Your task to perform on an android device: Find coffee shops on Maps Image 0: 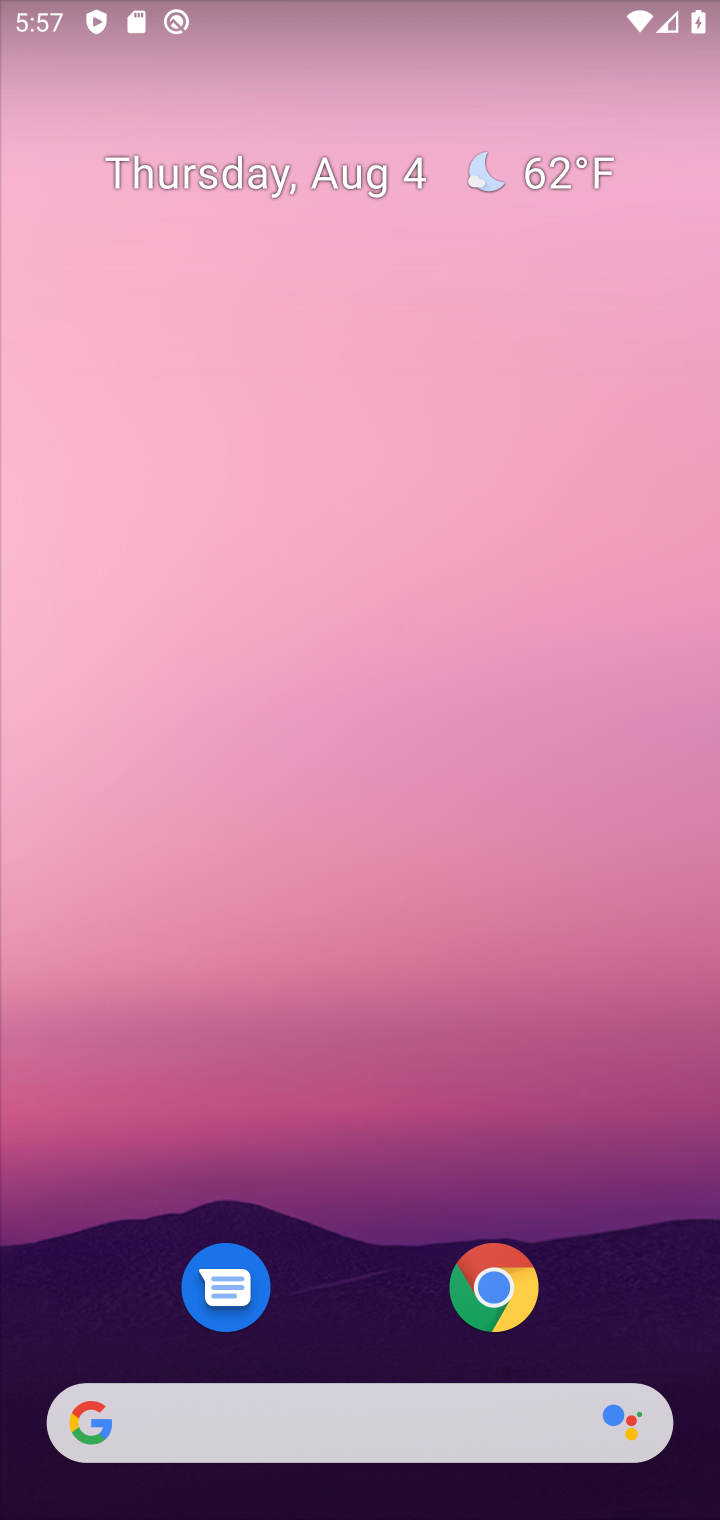
Step 0: click (325, 13)
Your task to perform on an android device: Find coffee shops on Maps Image 1: 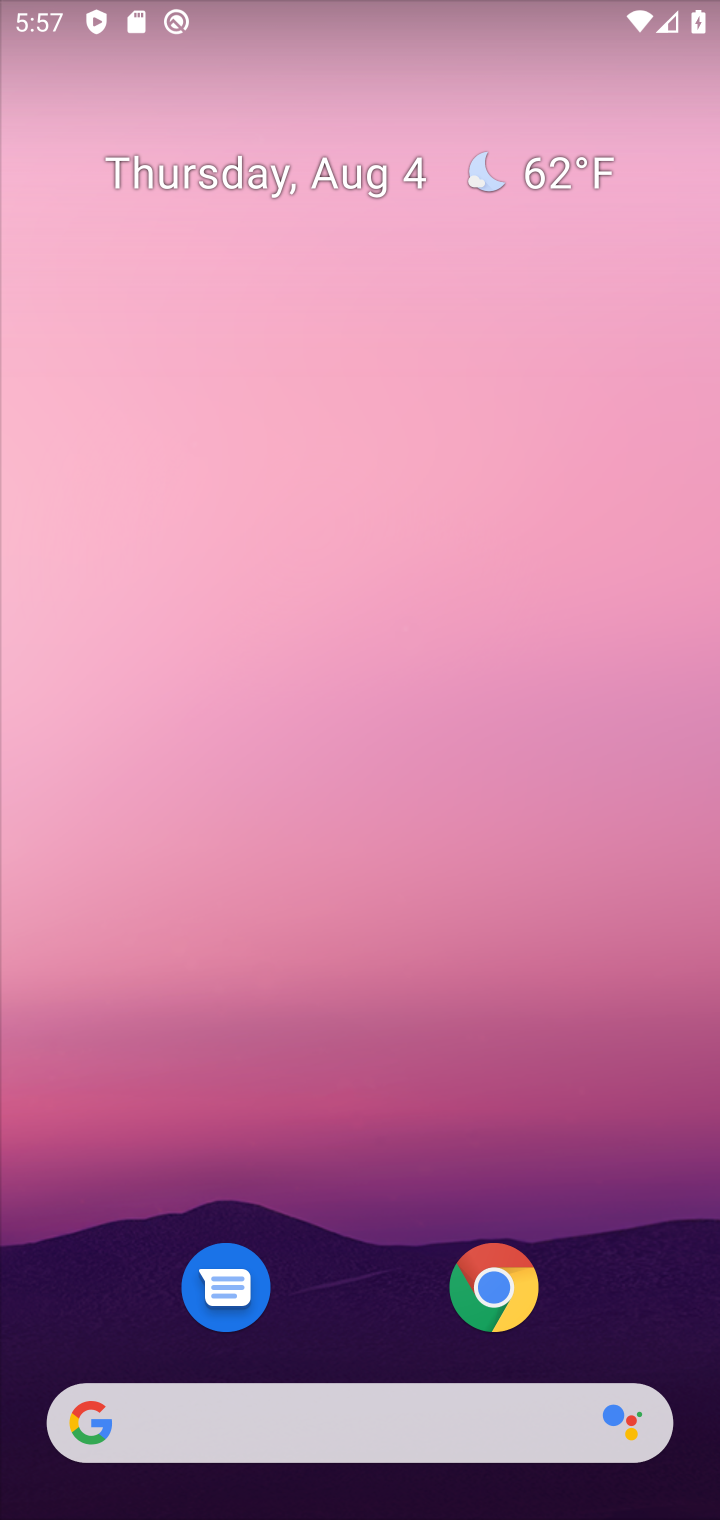
Step 1: drag from (336, 1139) to (503, 382)
Your task to perform on an android device: Find coffee shops on Maps Image 2: 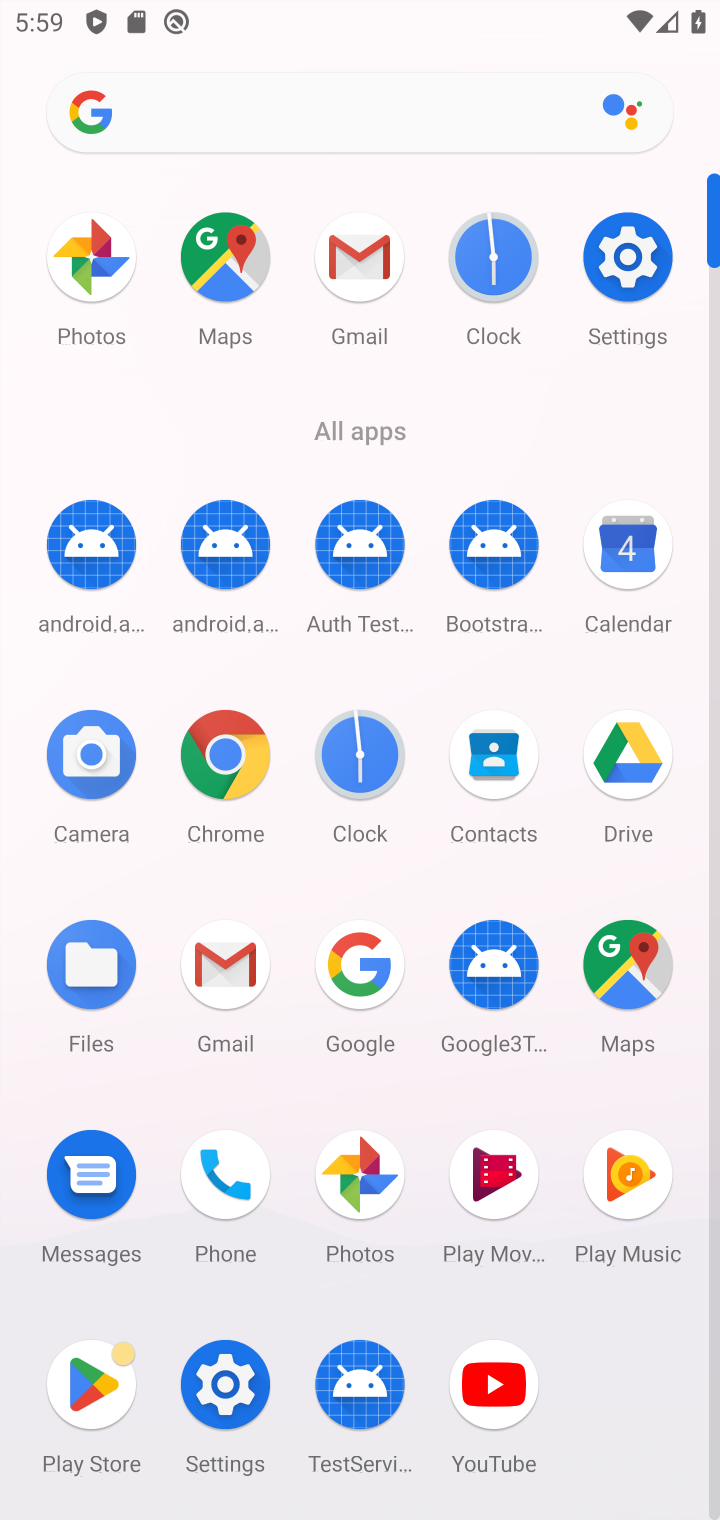
Step 2: click (100, 288)
Your task to perform on an android device: Find coffee shops on Maps Image 3: 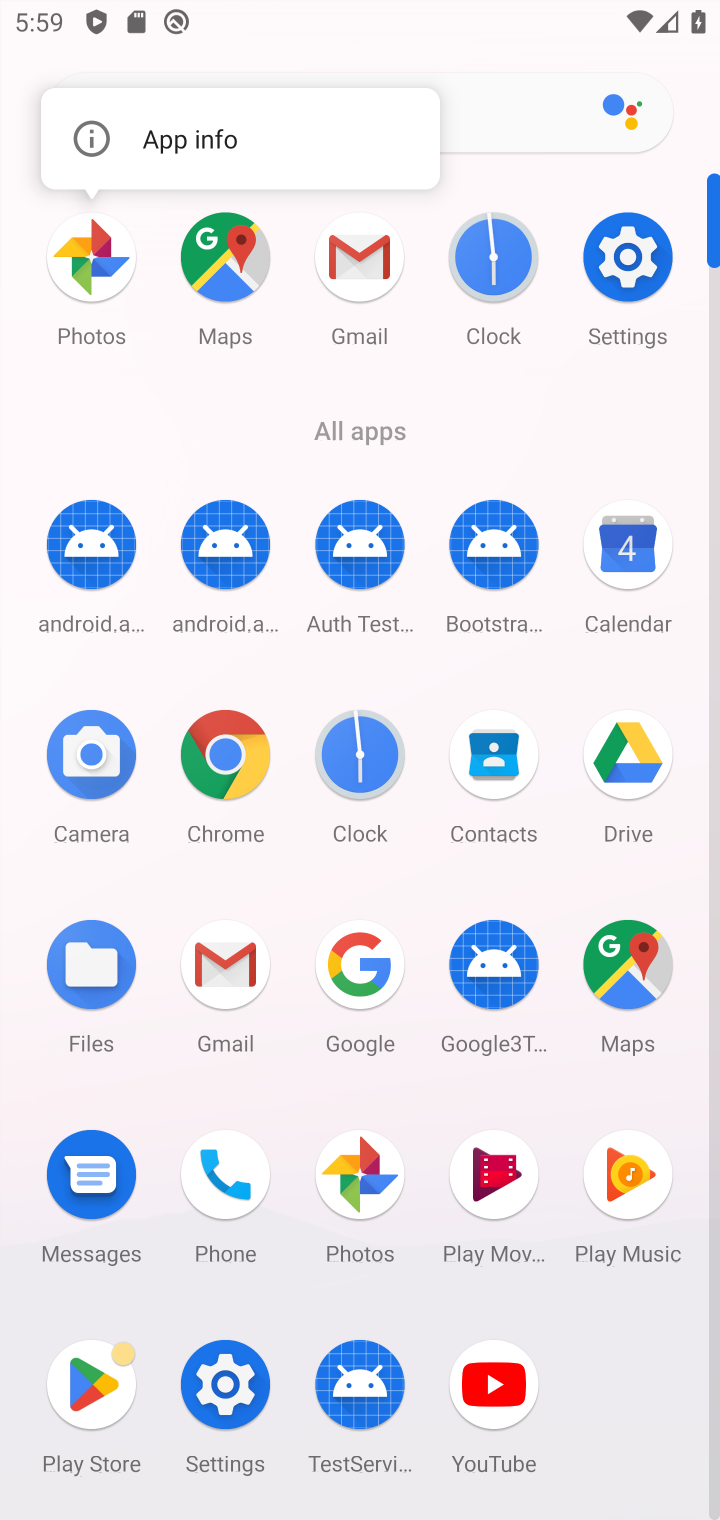
Step 3: click (93, 298)
Your task to perform on an android device: Find coffee shops on Maps Image 4: 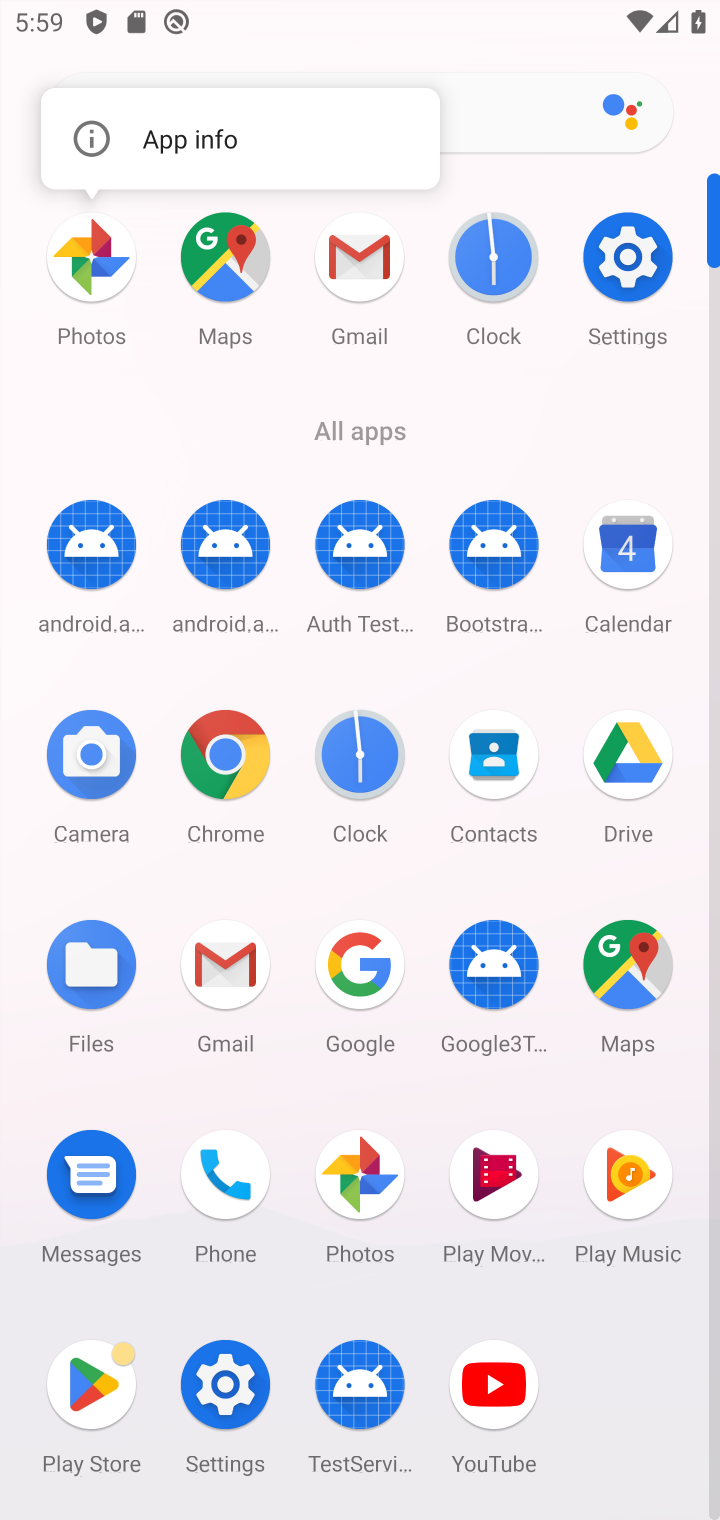
Step 4: click (193, 256)
Your task to perform on an android device: Find coffee shops on Maps Image 5: 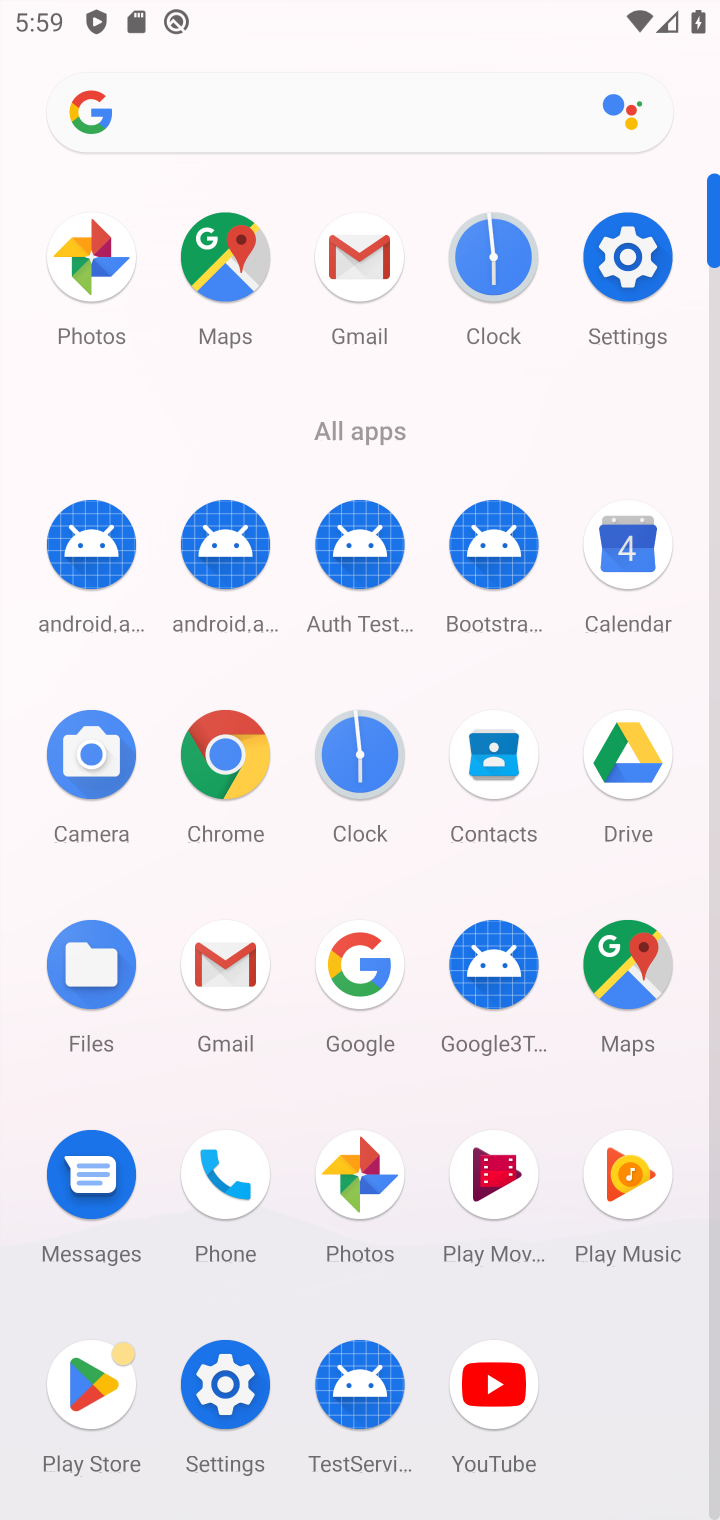
Step 5: click (224, 278)
Your task to perform on an android device: Find coffee shops on Maps Image 6: 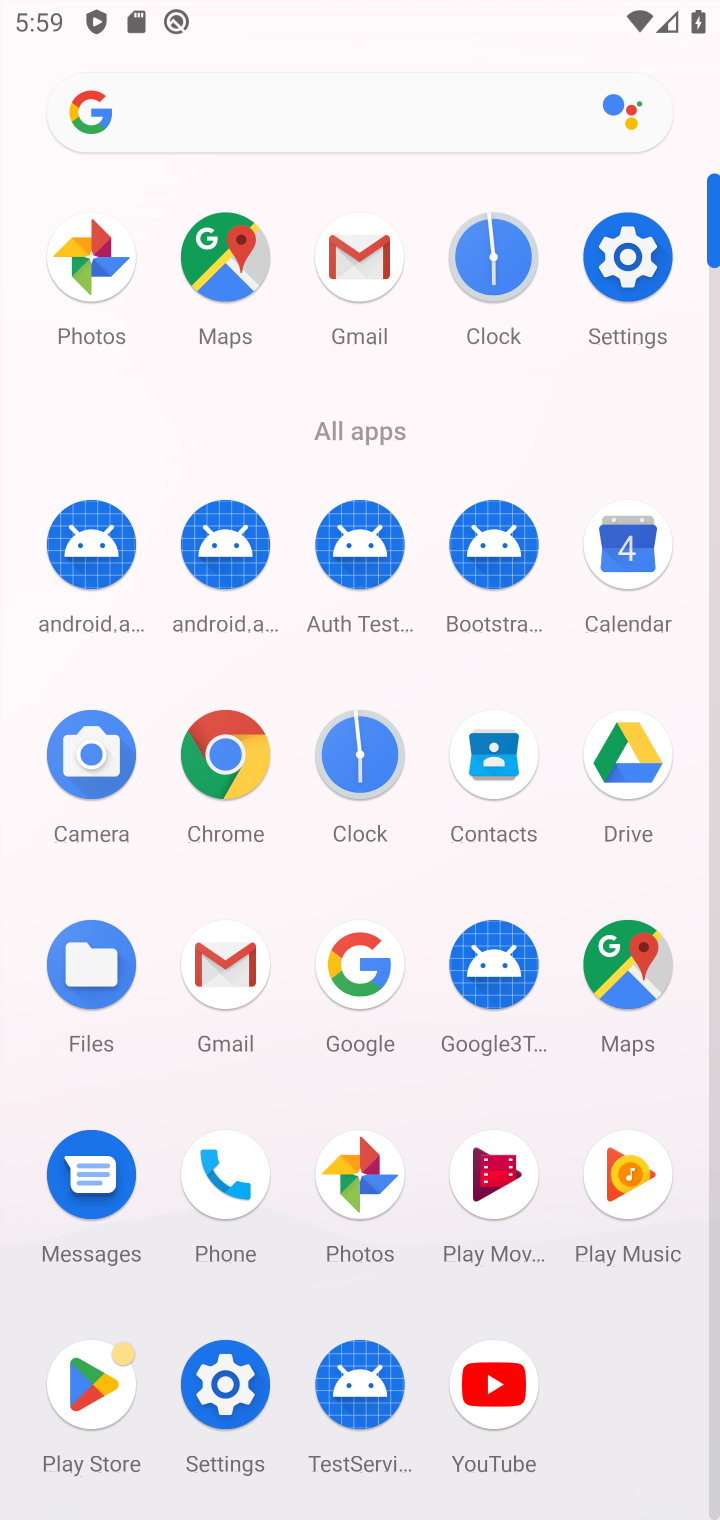
Step 6: drag from (231, 297) to (235, 208)
Your task to perform on an android device: Find coffee shops on Maps Image 7: 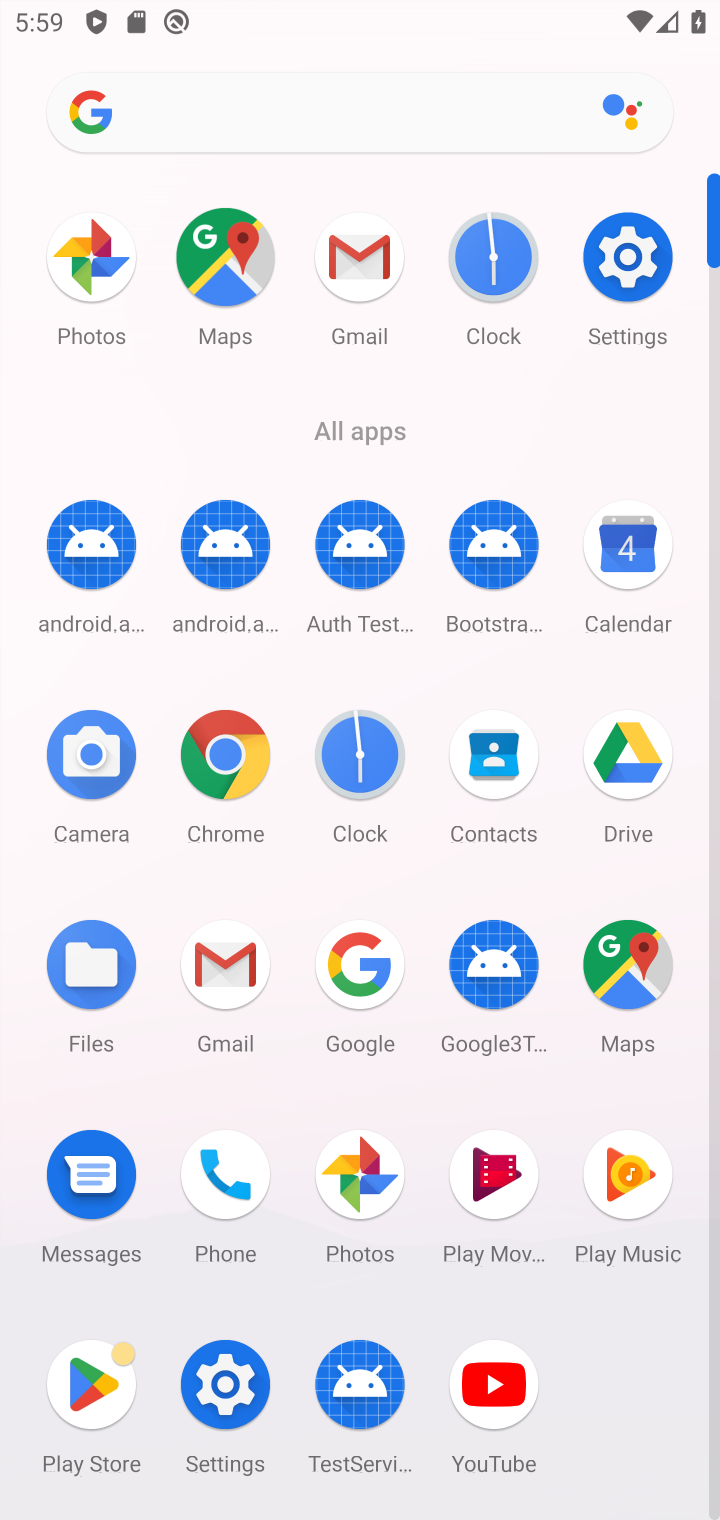
Step 7: click (215, 278)
Your task to perform on an android device: Find coffee shops on Maps Image 8: 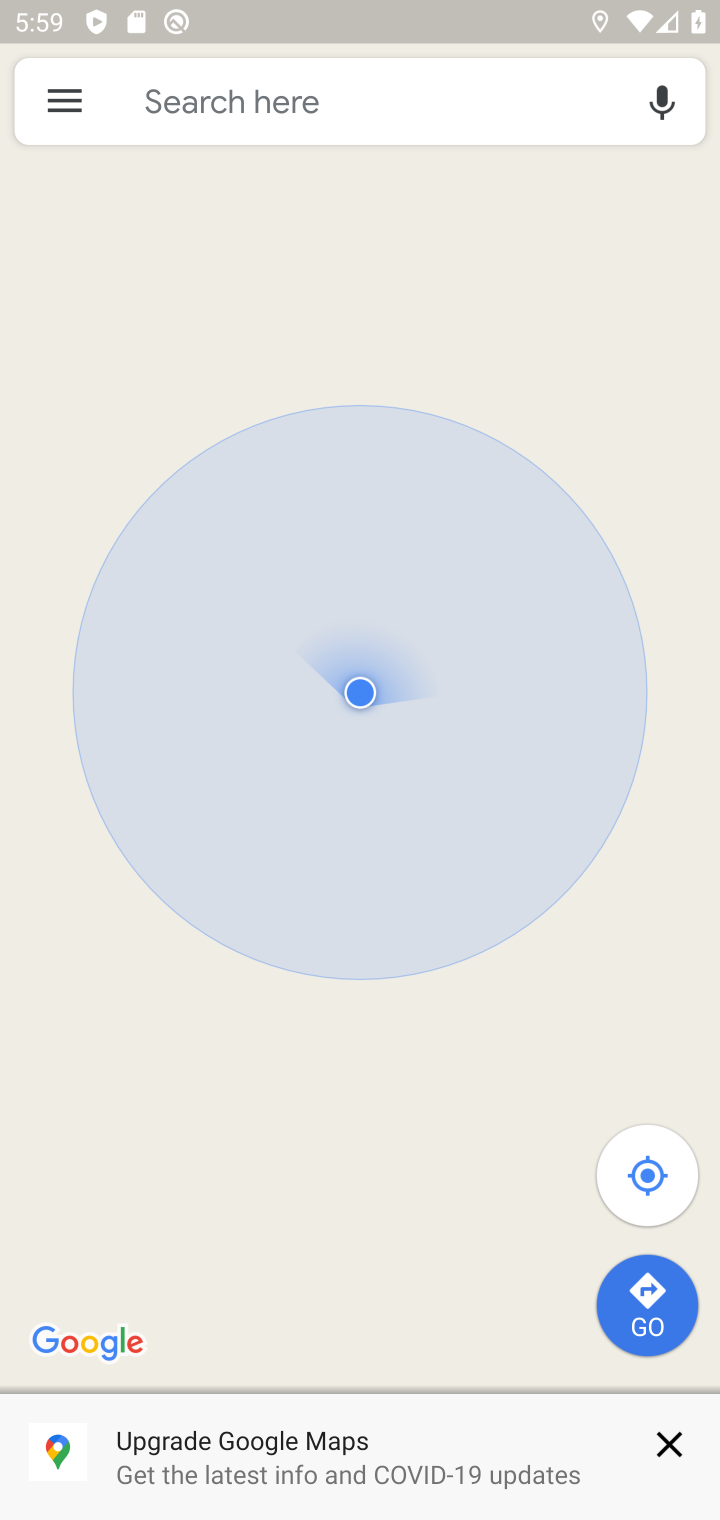
Step 8: click (305, 97)
Your task to perform on an android device: Find coffee shops on Maps Image 9: 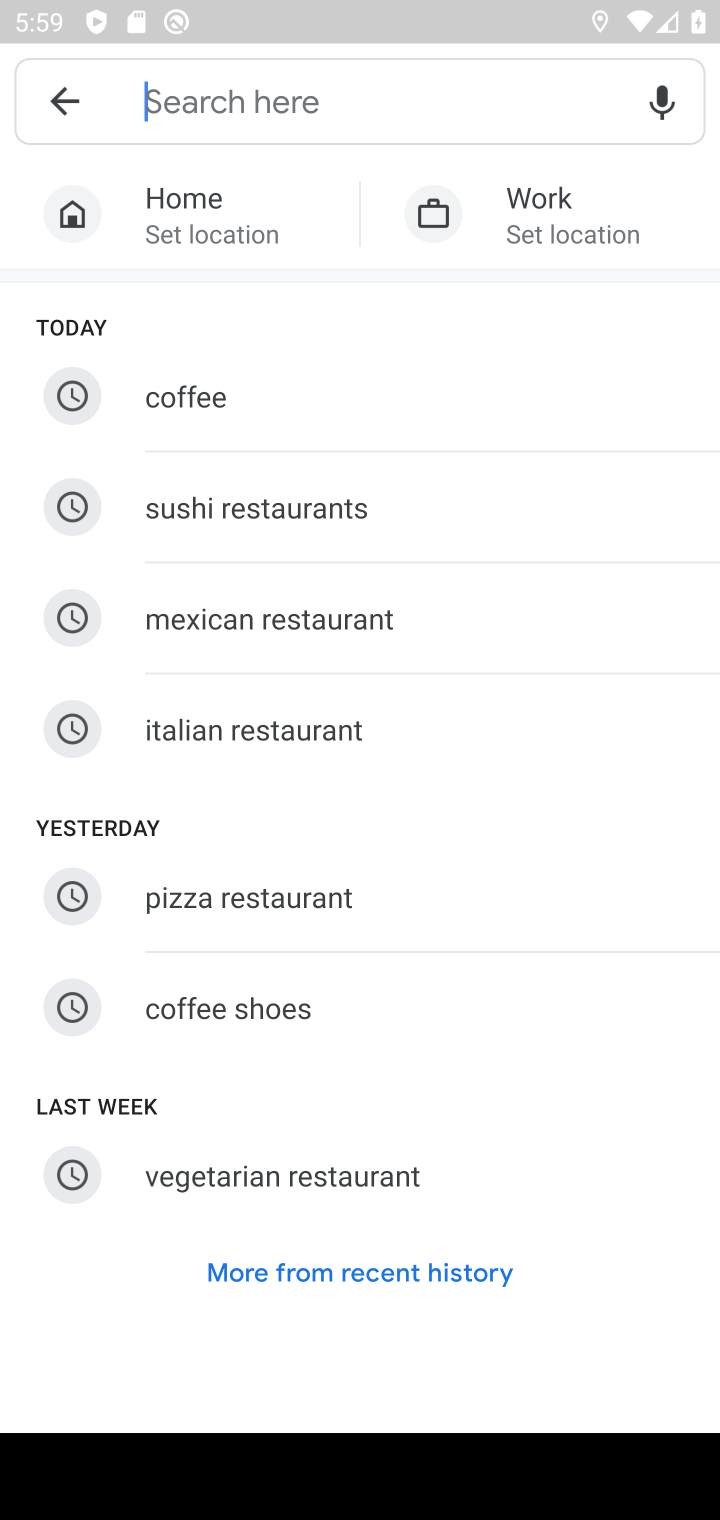
Step 9: type "coffee shop"
Your task to perform on an android device: Find coffee shops on Maps Image 10: 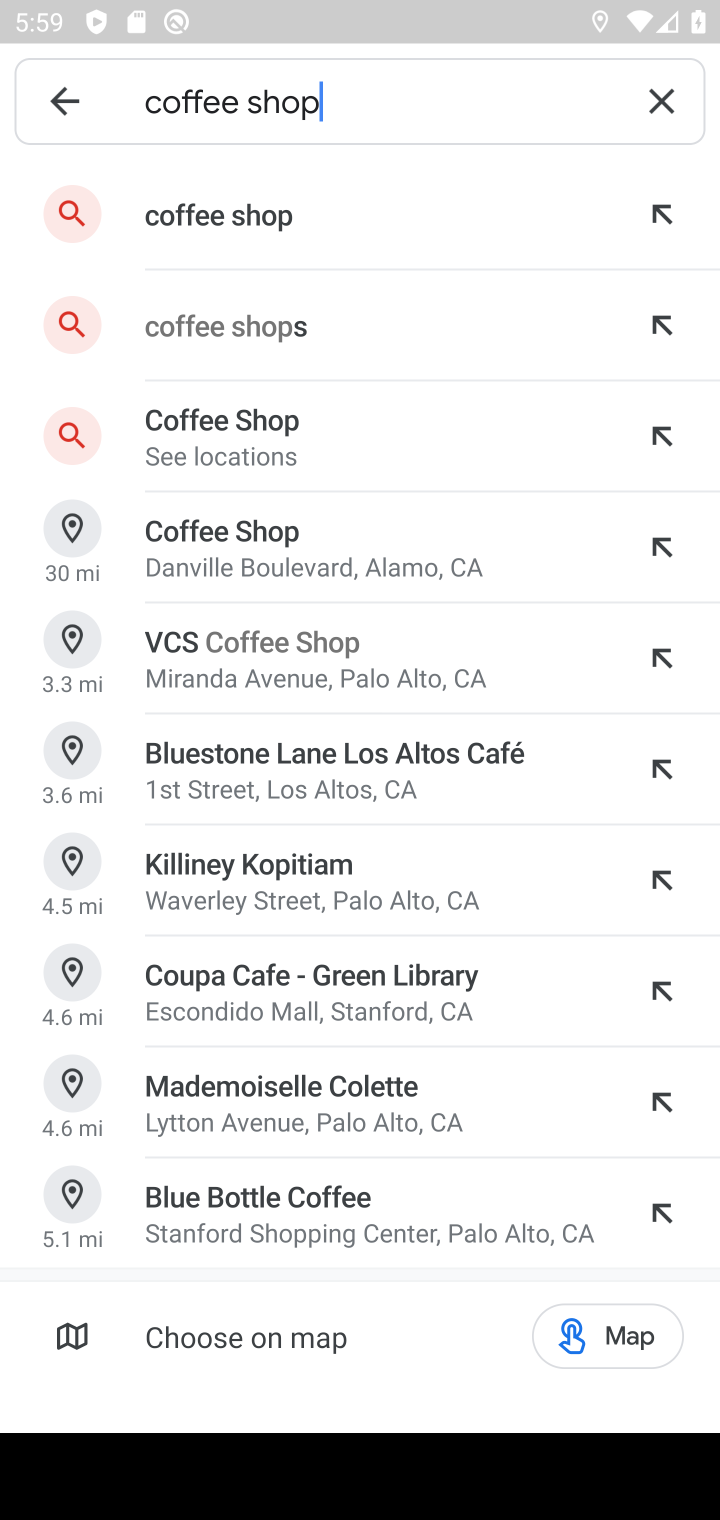
Step 10: press enter
Your task to perform on an android device: Find coffee shops on Maps Image 11: 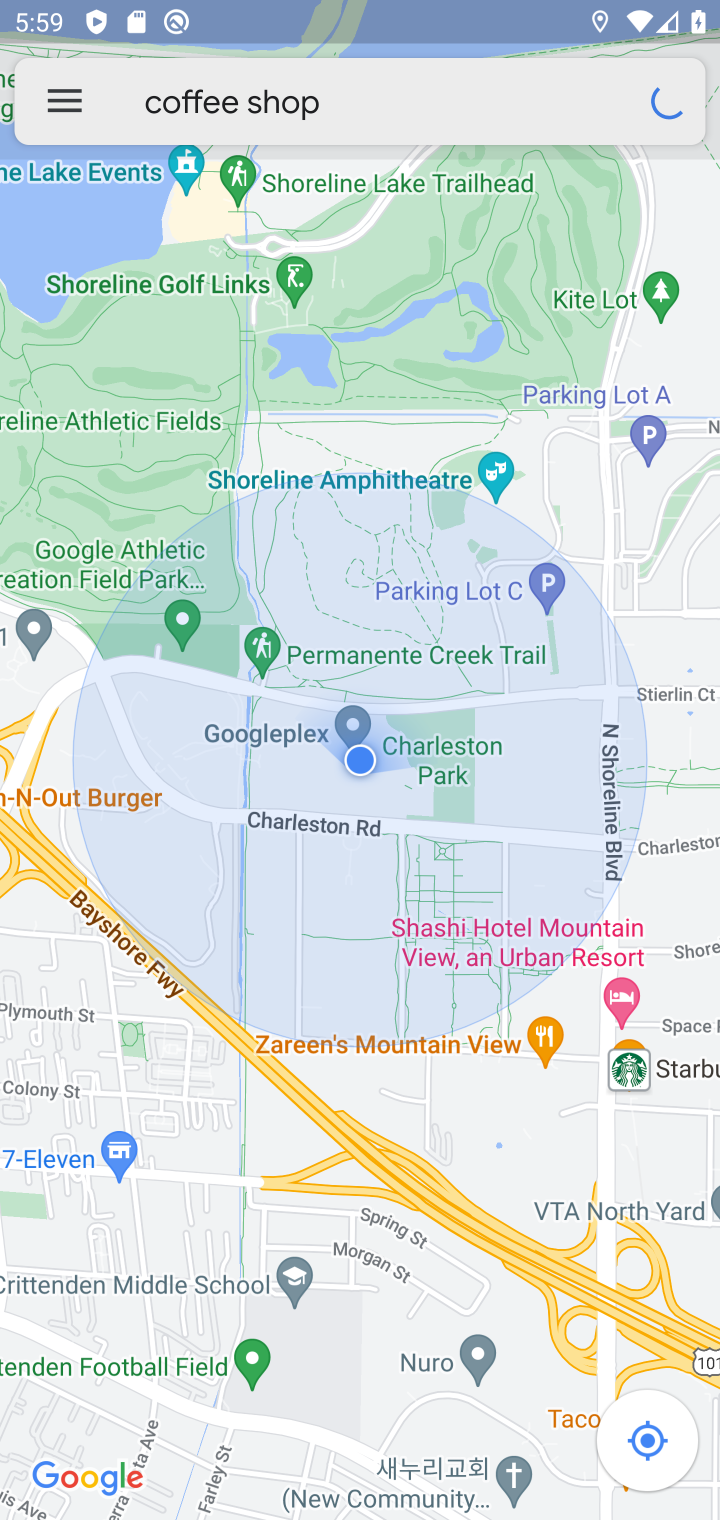
Step 11: click (324, 317)
Your task to perform on an android device: Find coffee shops on Maps Image 12: 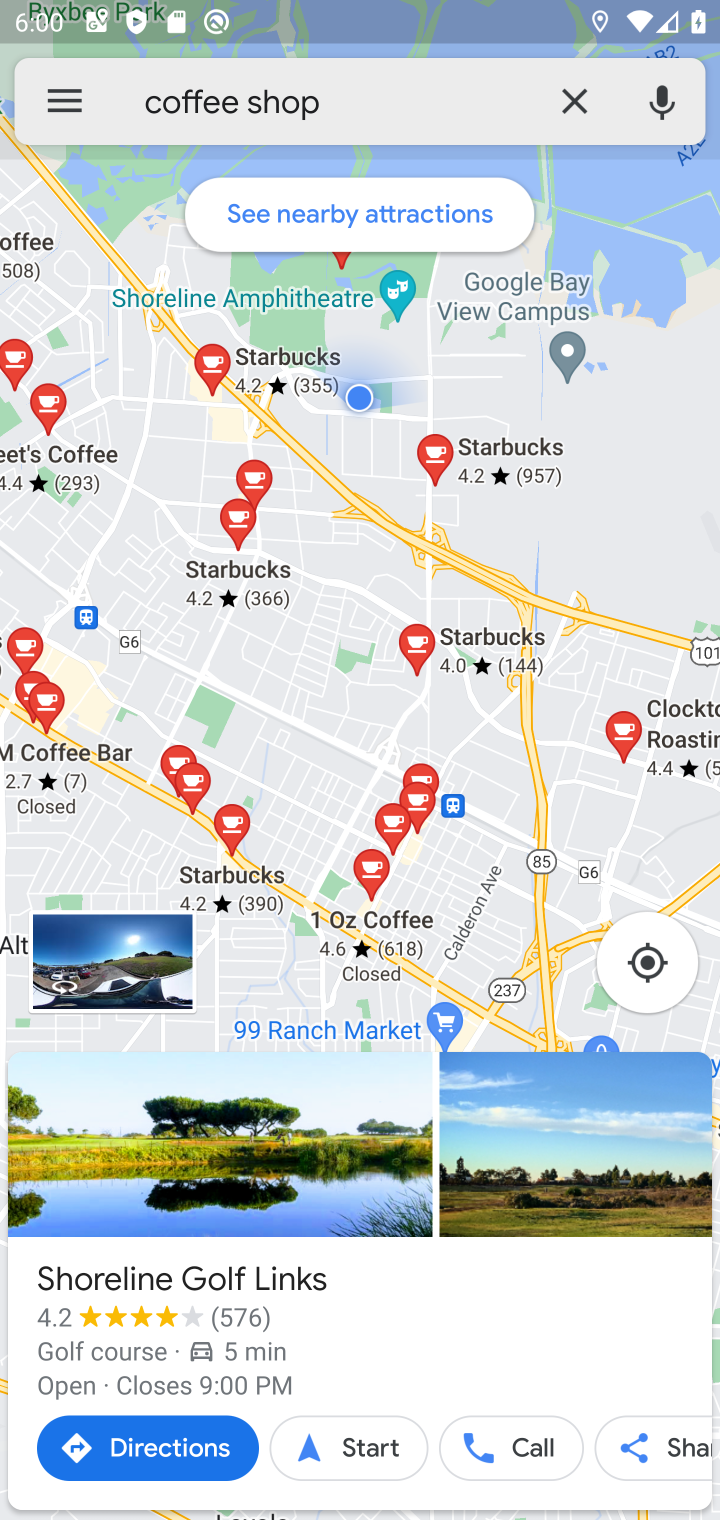
Step 12: task complete